Your task to perform on an android device: open a new tab in the chrome app Image 0: 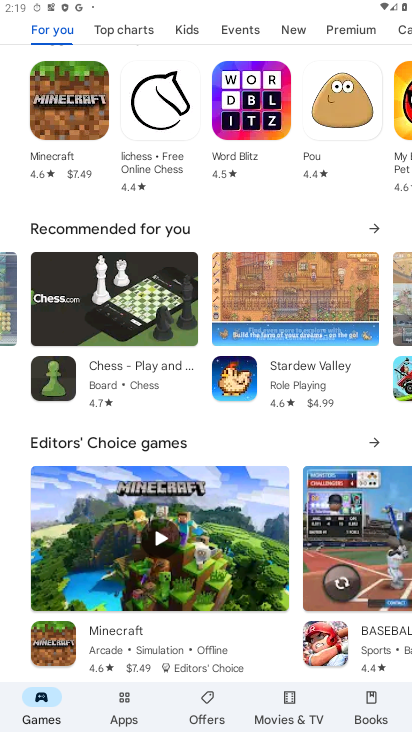
Step 0: press home button
Your task to perform on an android device: open a new tab in the chrome app Image 1: 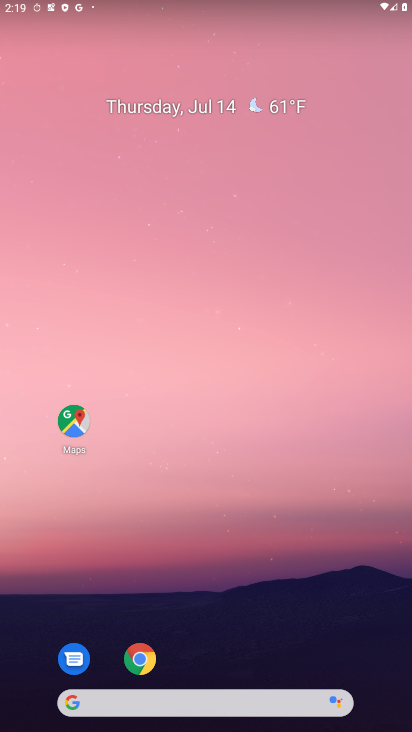
Step 1: click (140, 663)
Your task to perform on an android device: open a new tab in the chrome app Image 2: 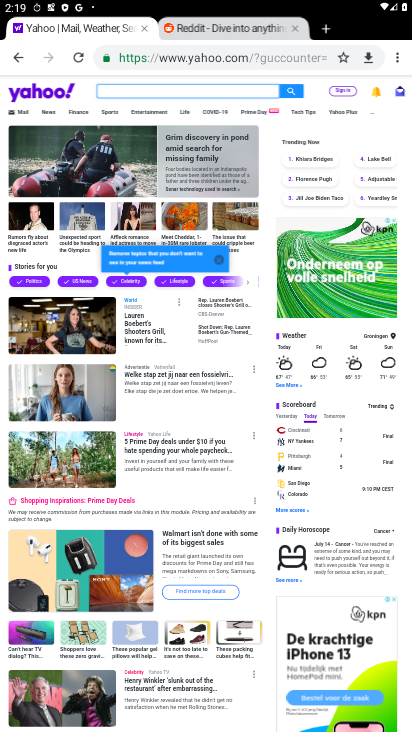
Step 2: click (321, 30)
Your task to perform on an android device: open a new tab in the chrome app Image 3: 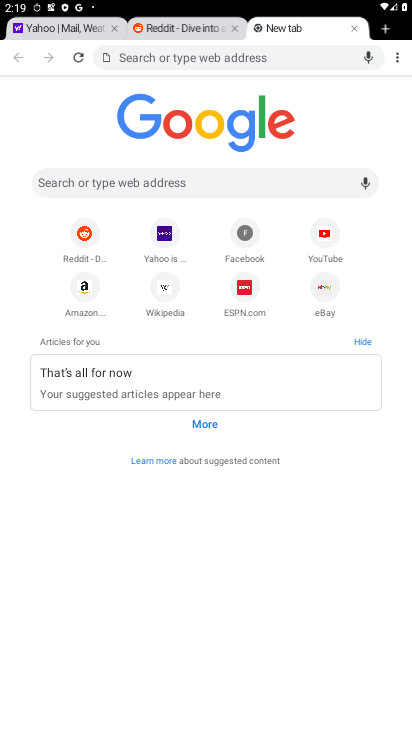
Step 3: task complete